Your task to perform on an android device: Open my contact list Image 0: 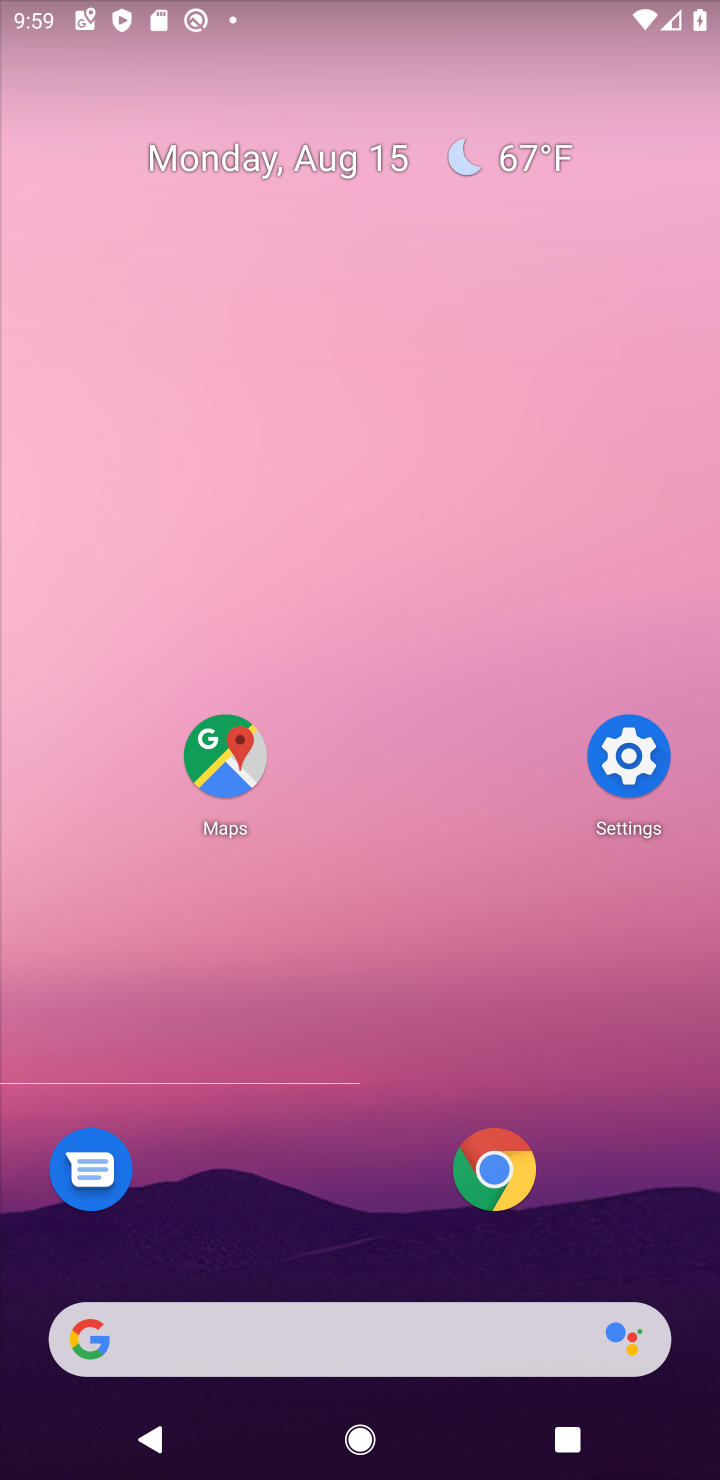
Step 0: drag from (301, 1208) to (620, 0)
Your task to perform on an android device: Open my contact list Image 1: 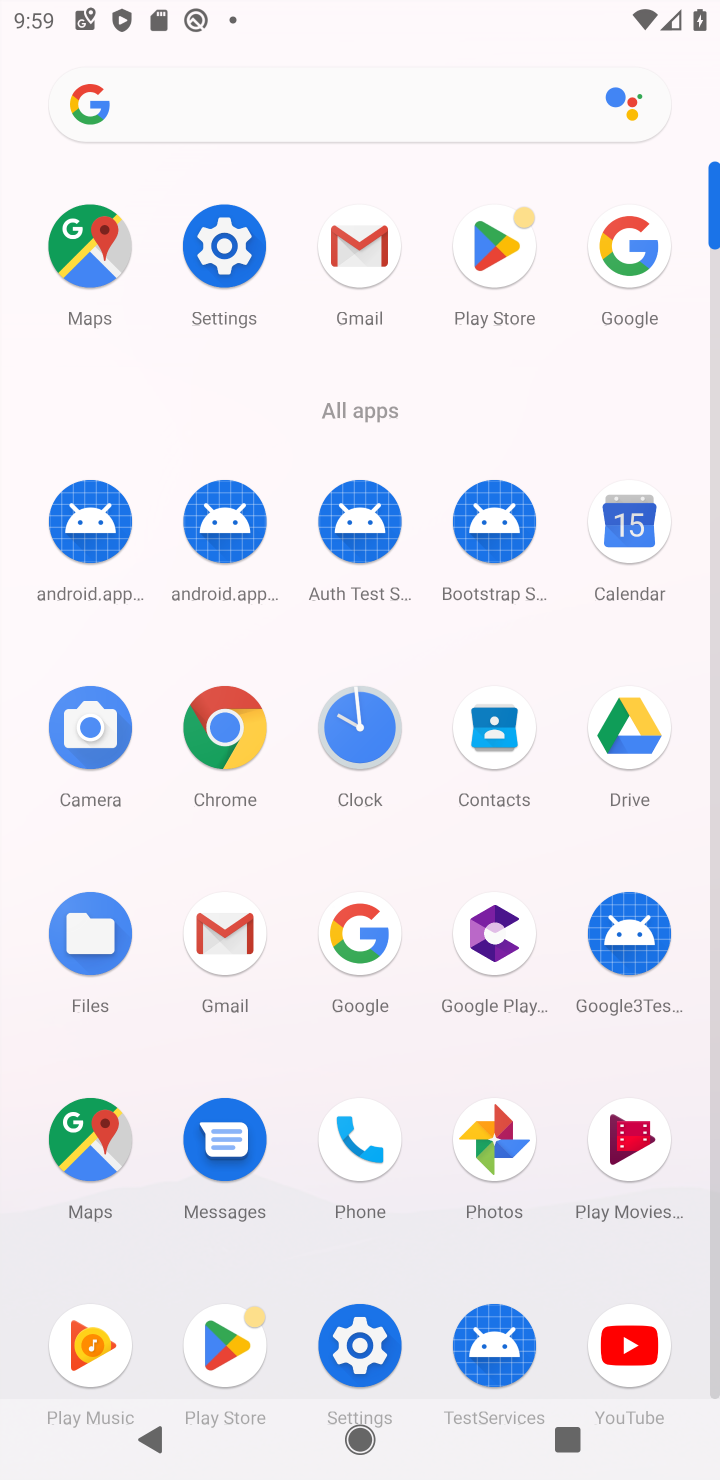
Step 1: click (489, 727)
Your task to perform on an android device: Open my contact list Image 2: 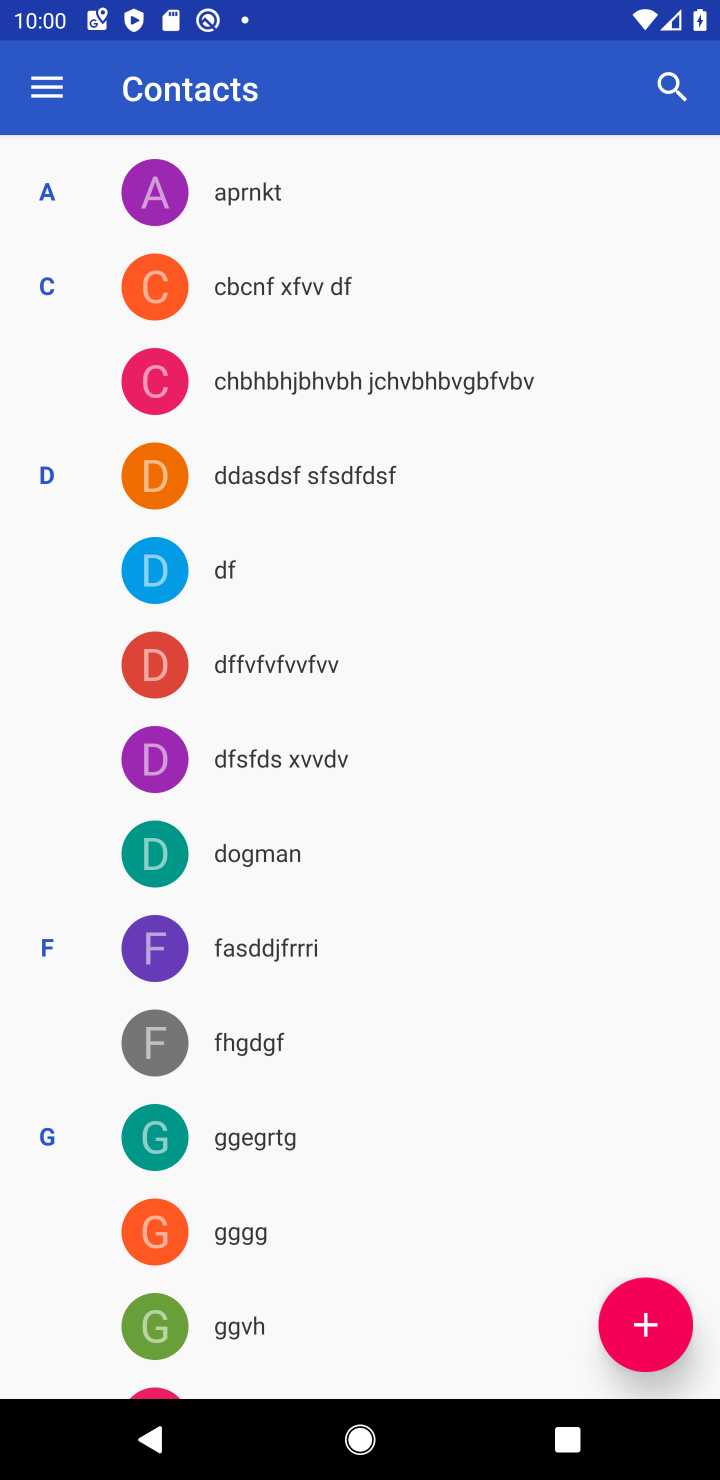
Step 2: task complete